Your task to perform on an android device: set the timer Image 0: 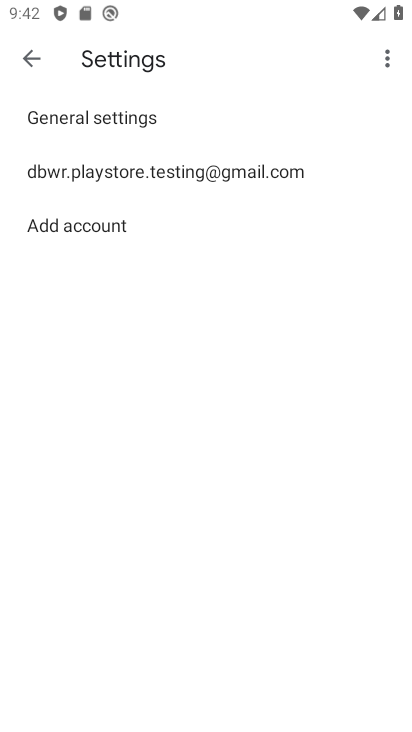
Step 0: press home button
Your task to perform on an android device: set the timer Image 1: 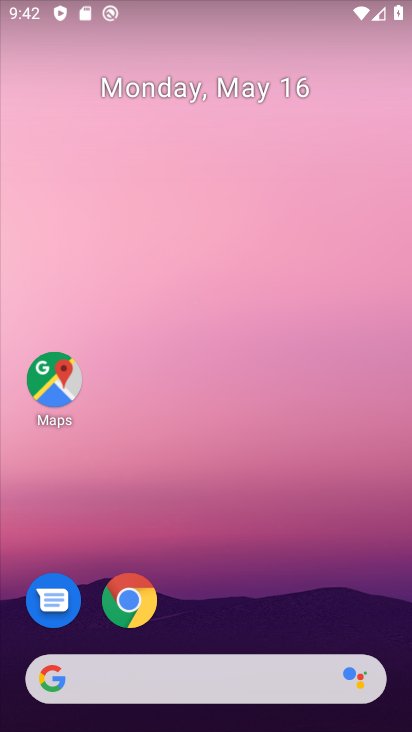
Step 1: drag from (241, 628) to (298, 228)
Your task to perform on an android device: set the timer Image 2: 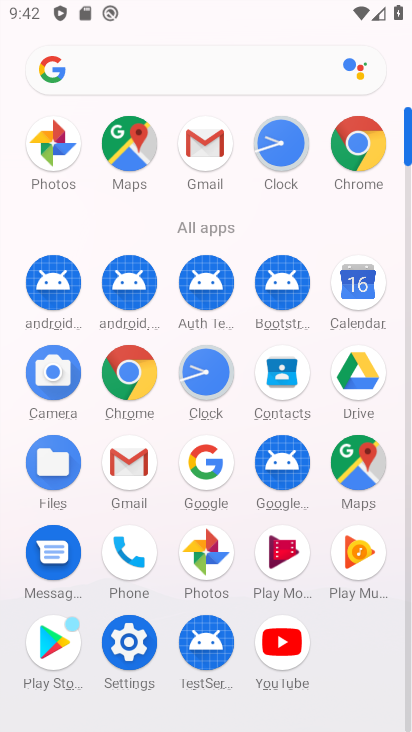
Step 2: click (206, 398)
Your task to perform on an android device: set the timer Image 3: 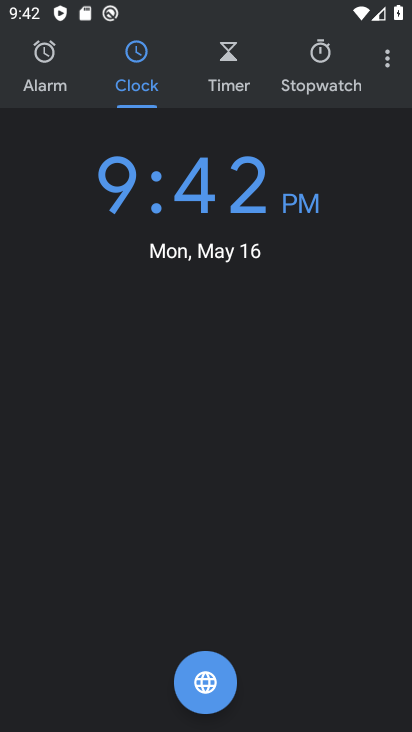
Step 3: click (264, 62)
Your task to perform on an android device: set the timer Image 4: 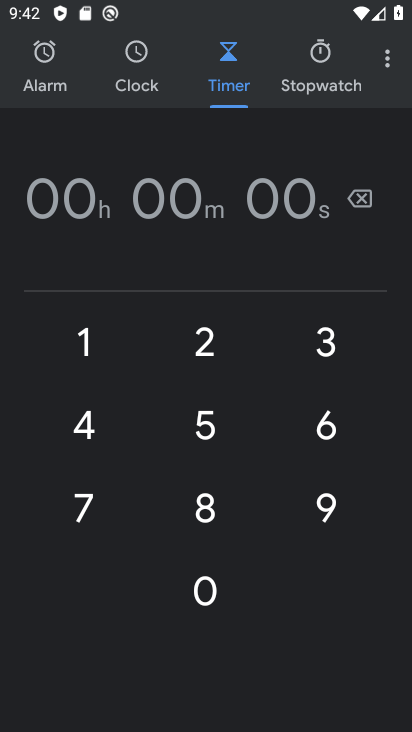
Step 4: click (219, 351)
Your task to perform on an android device: set the timer Image 5: 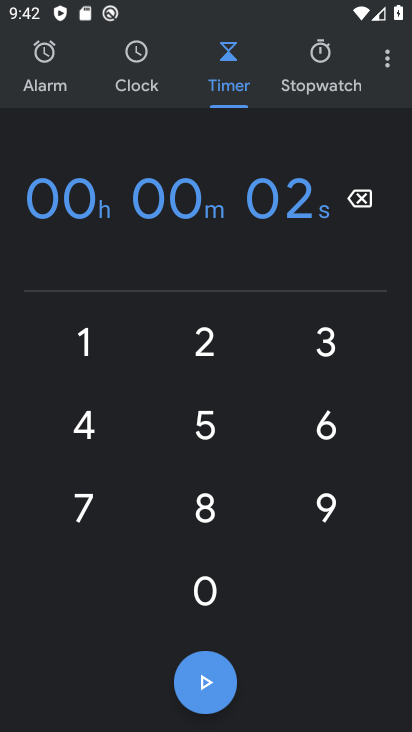
Step 5: click (212, 599)
Your task to perform on an android device: set the timer Image 6: 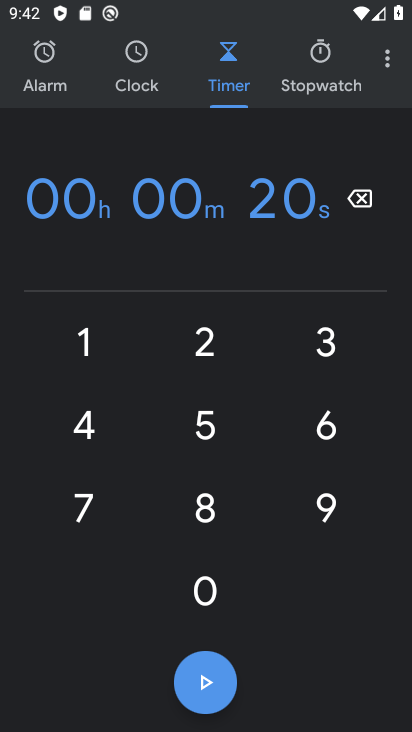
Step 6: click (208, 673)
Your task to perform on an android device: set the timer Image 7: 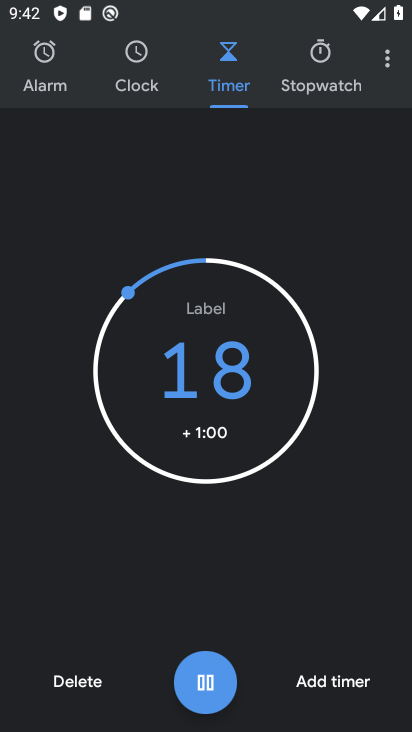
Step 7: task complete